Your task to perform on an android device: What's a good restaurant in Sacramento? Image 0: 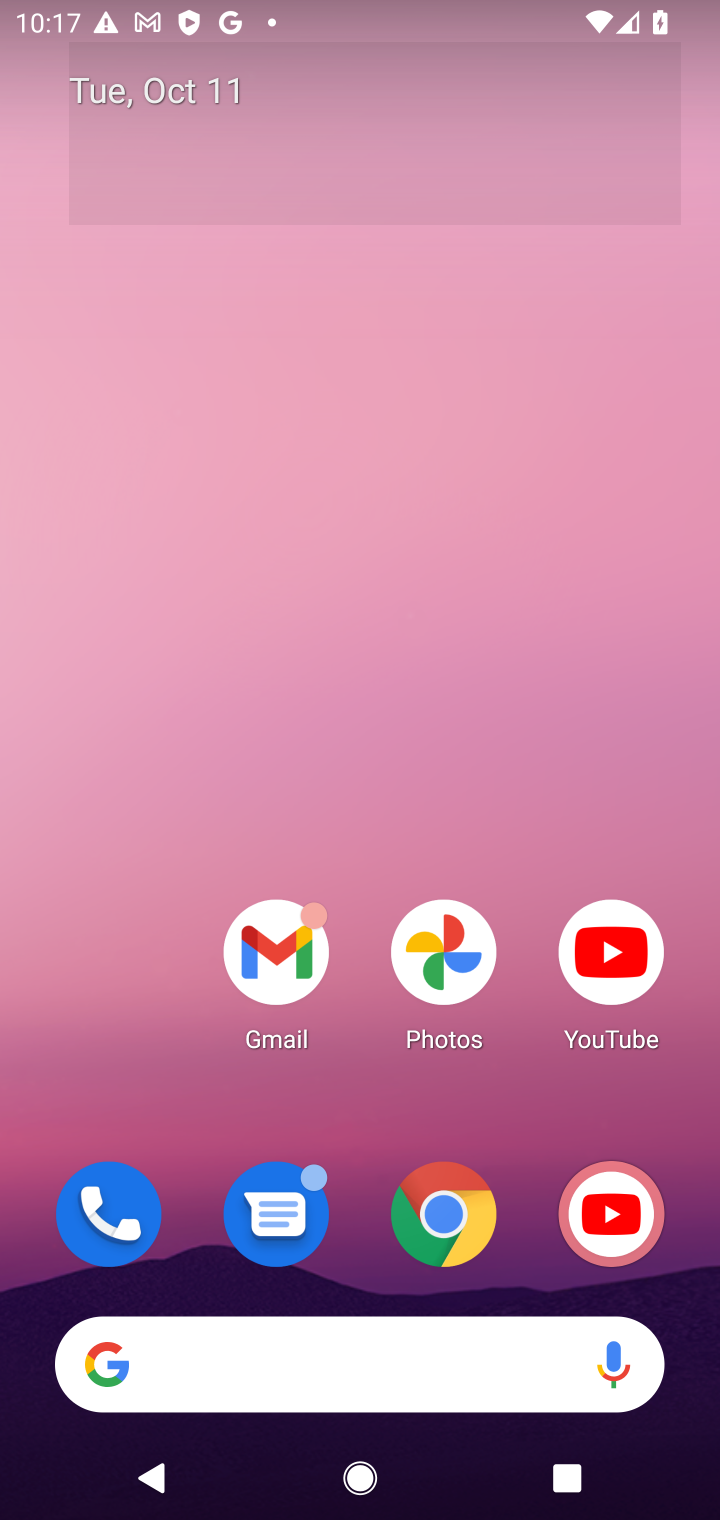
Step 0: drag from (340, 917) to (416, 9)
Your task to perform on an android device: What's a good restaurant in Sacramento? Image 1: 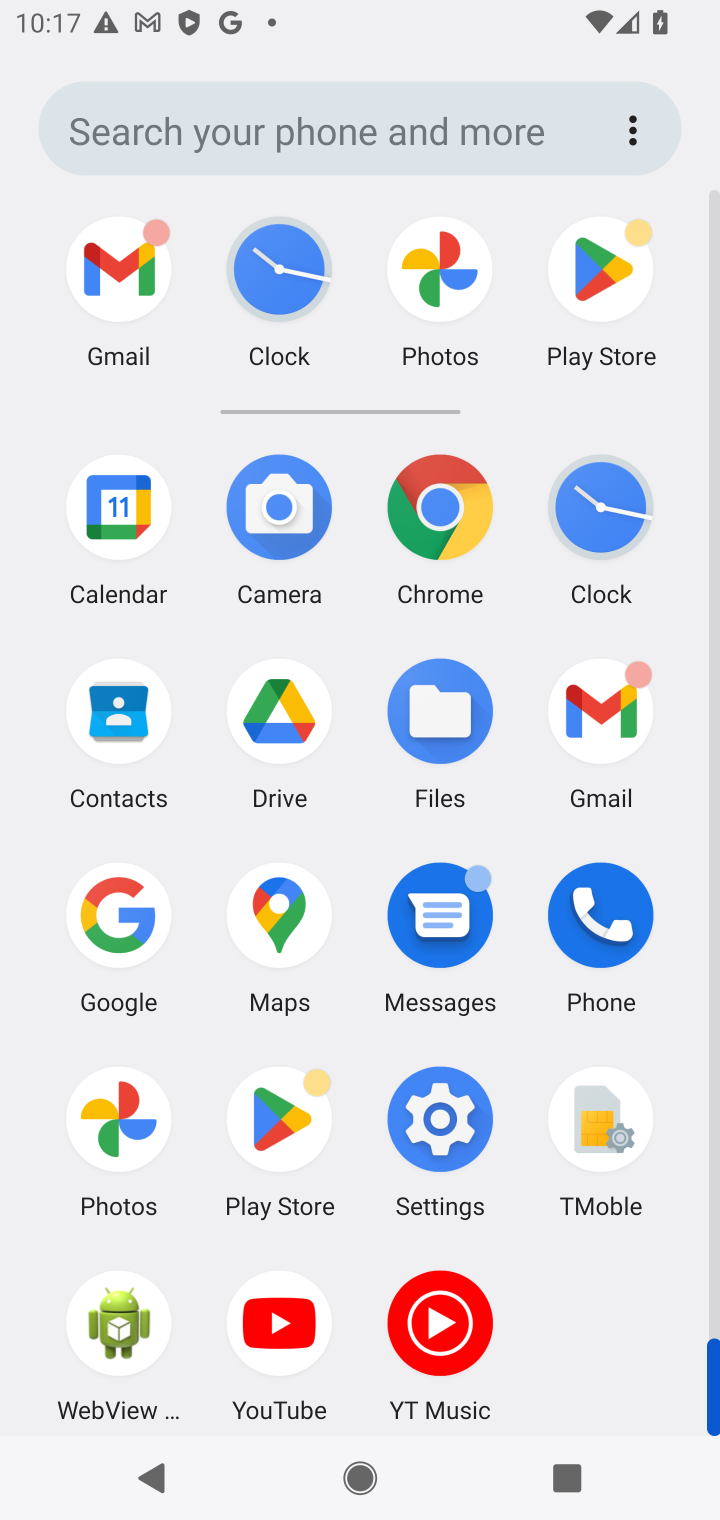
Step 1: click (436, 514)
Your task to perform on an android device: What's a good restaurant in Sacramento? Image 2: 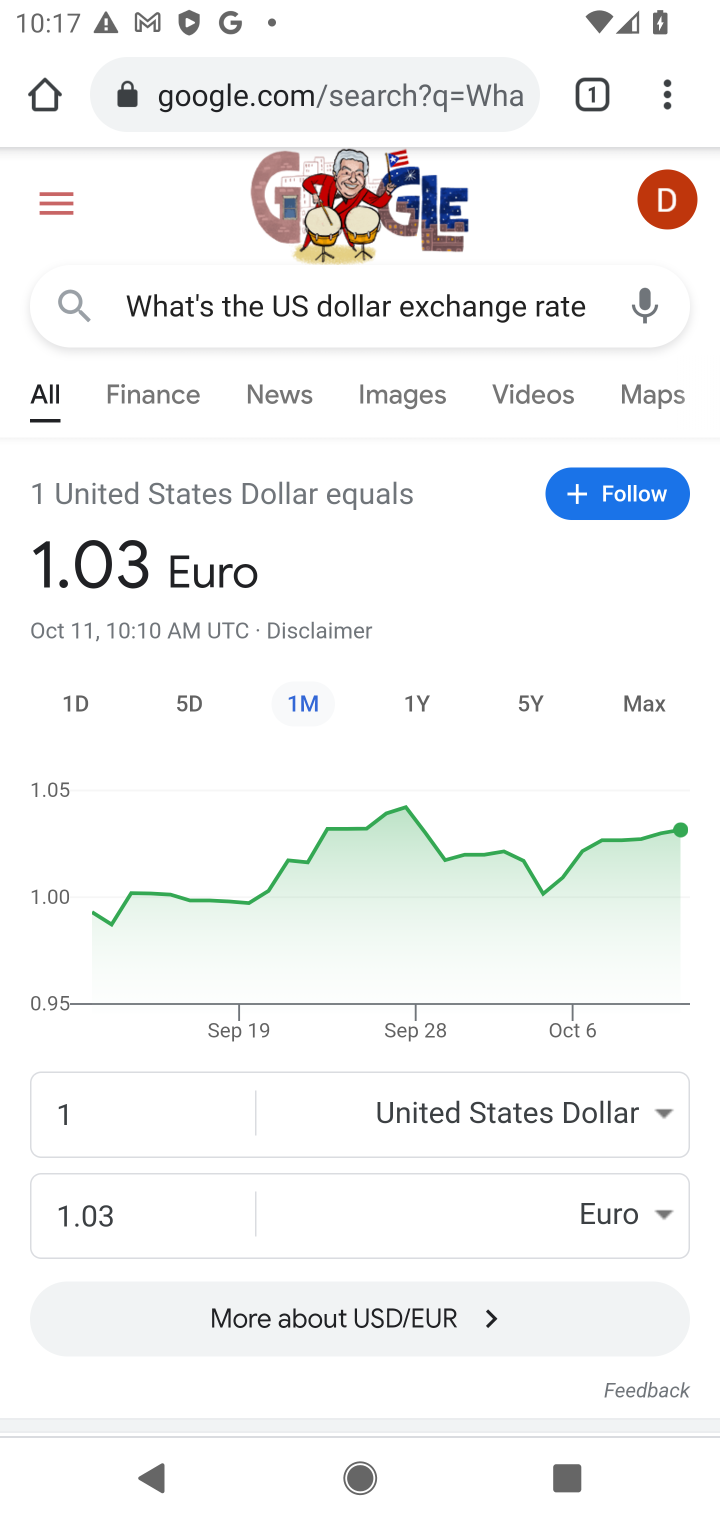
Step 2: click (294, 111)
Your task to perform on an android device: What's a good restaurant in Sacramento? Image 3: 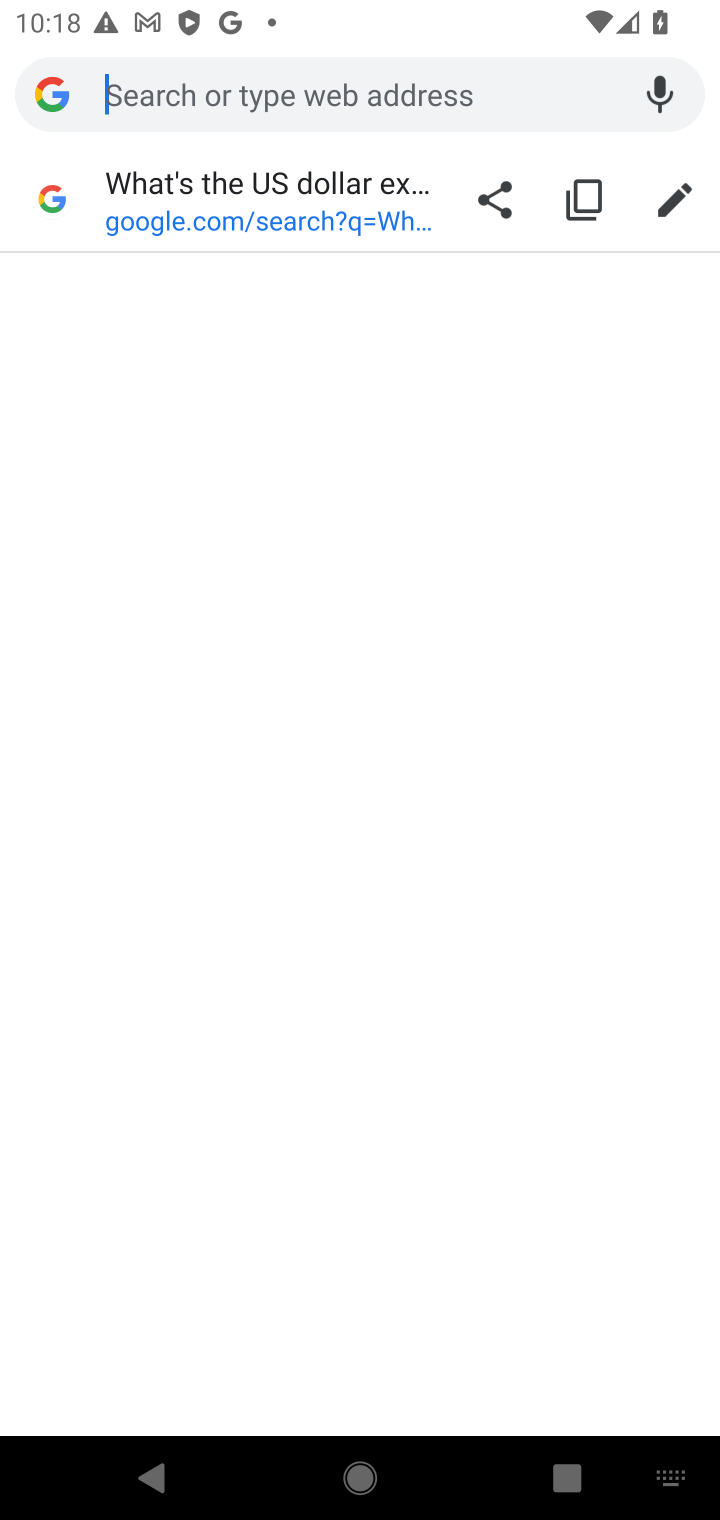
Step 3: type "Whats a good restaurant in Sacramento?"
Your task to perform on an android device: What's a good restaurant in Sacramento? Image 4: 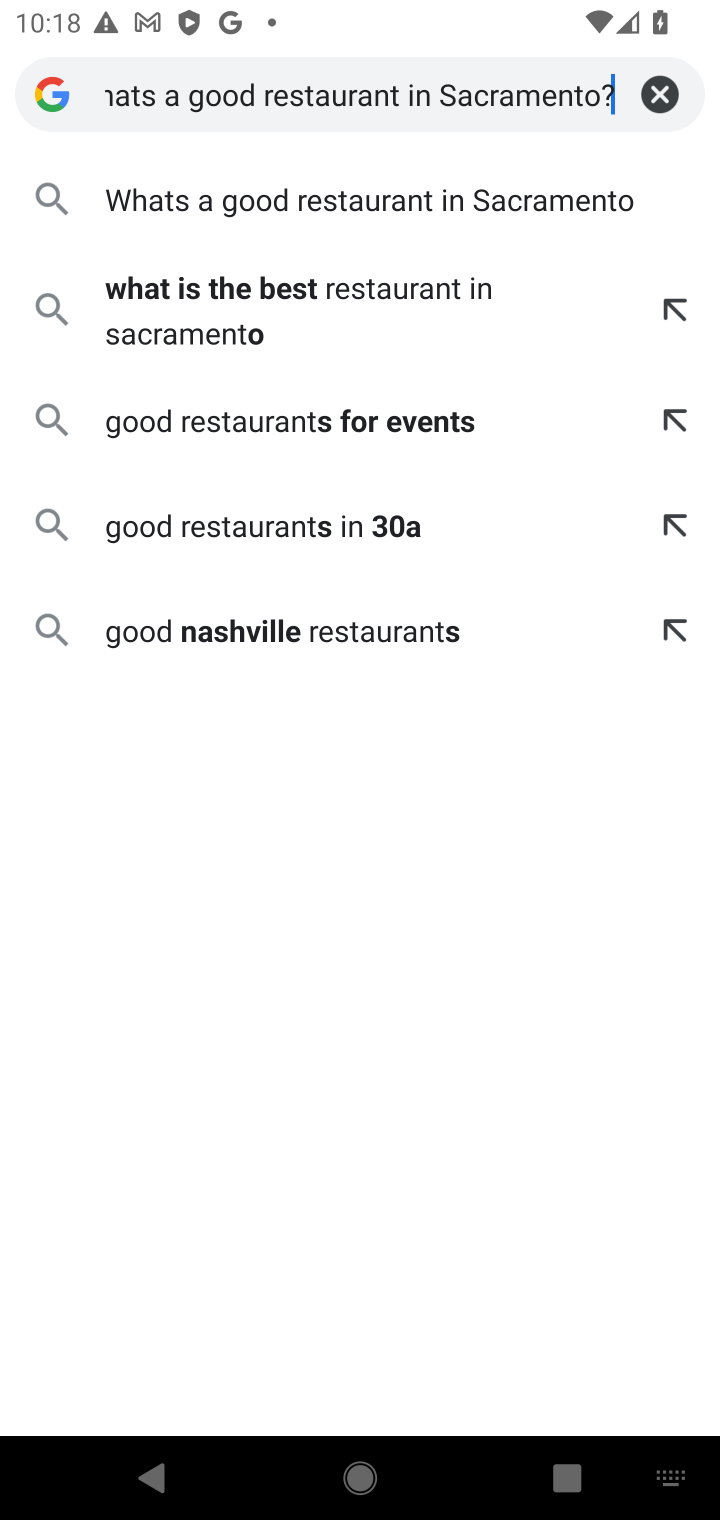
Step 4: press enter
Your task to perform on an android device: What's a good restaurant in Sacramento? Image 5: 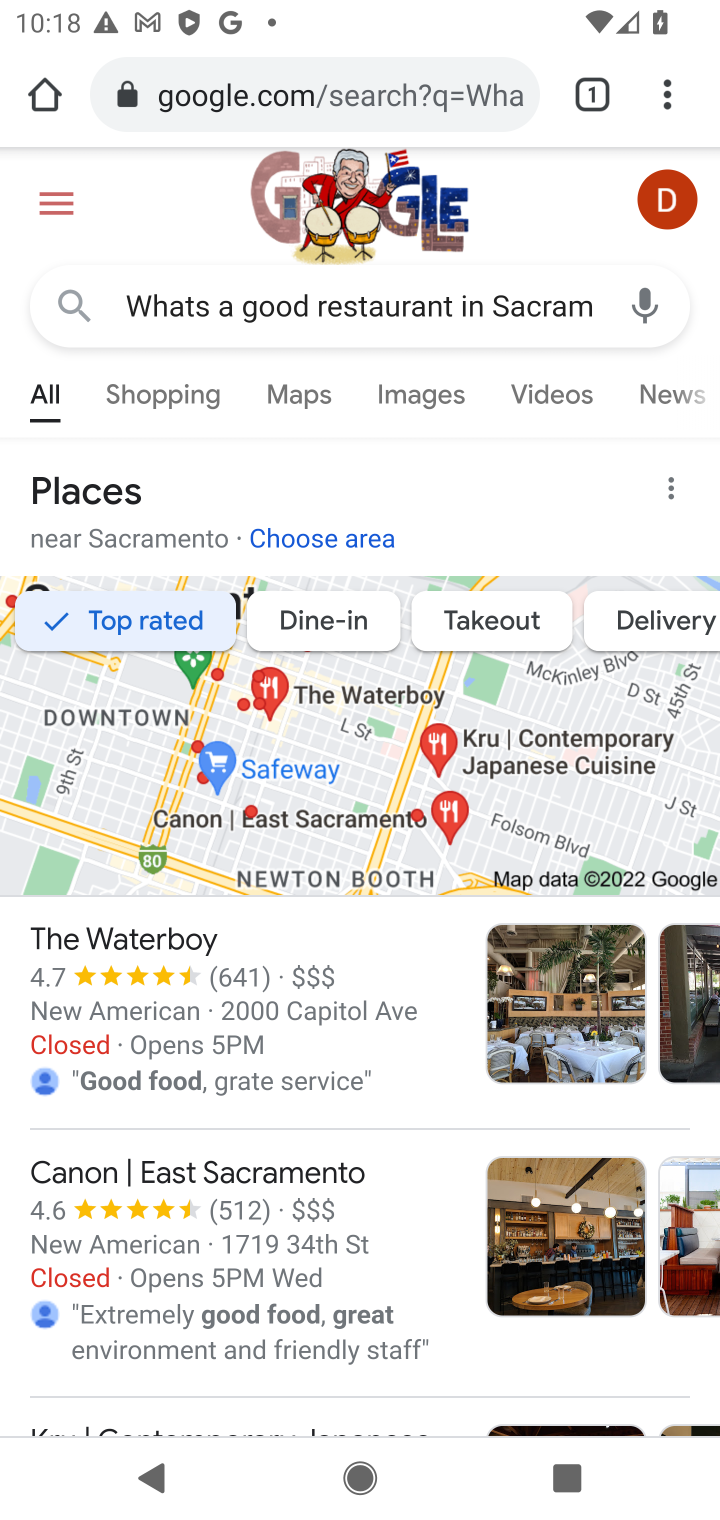
Step 5: task complete